Your task to perform on an android device: Open the map Image 0: 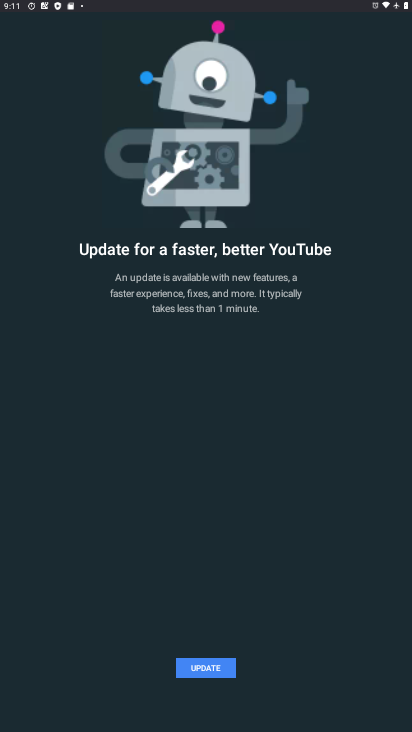
Step 0: press home button
Your task to perform on an android device: Open the map Image 1: 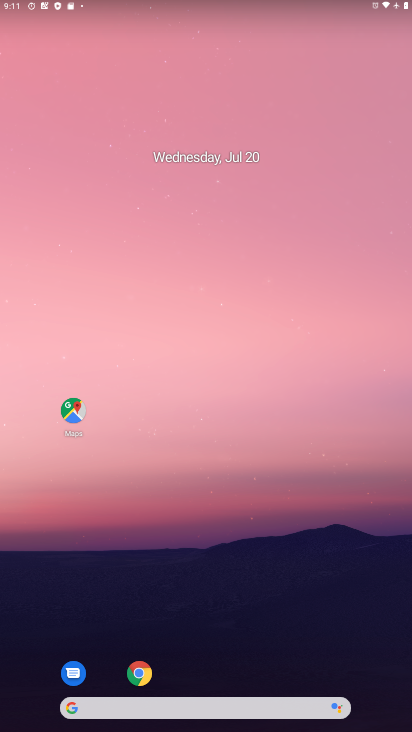
Step 1: click (72, 414)
Your task to perform on an android device: Open the map Image 2: 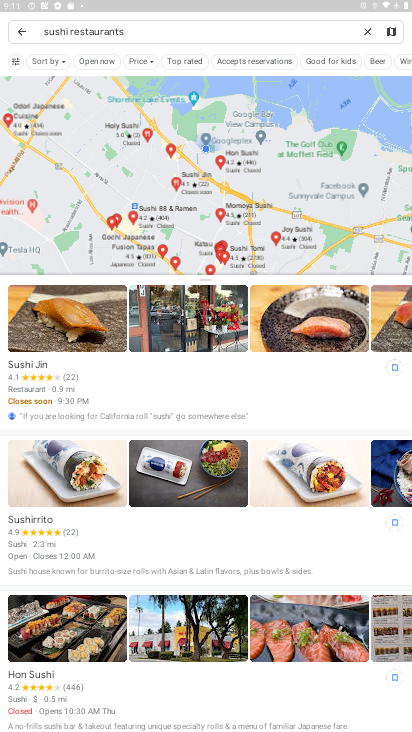
Step 2: task complete